Your task to perform on an android device: Go to display settings Image 0: 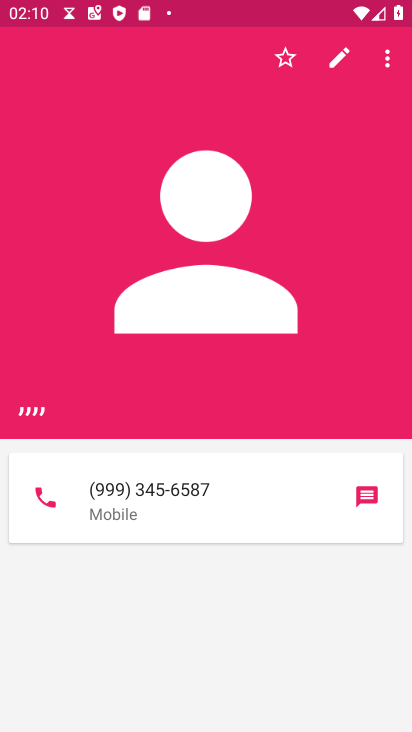
Step 0: press home button
Your task to perform on an android device: Go to display settings Image 1: 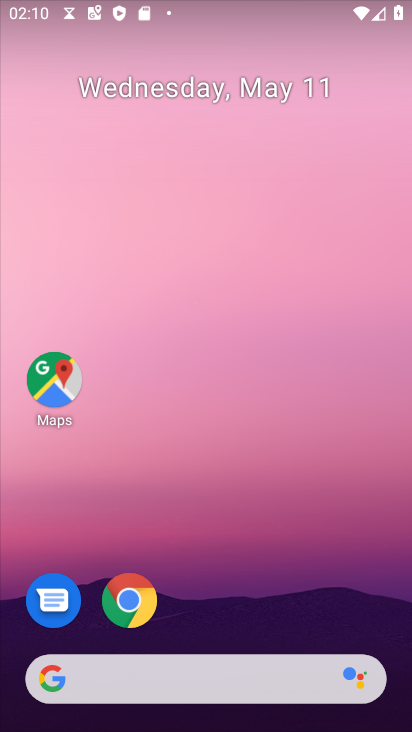
Step 1: drag from (234, 567) to (231, 235)
Your task to perform on an android device: Go to display settings Image 2: 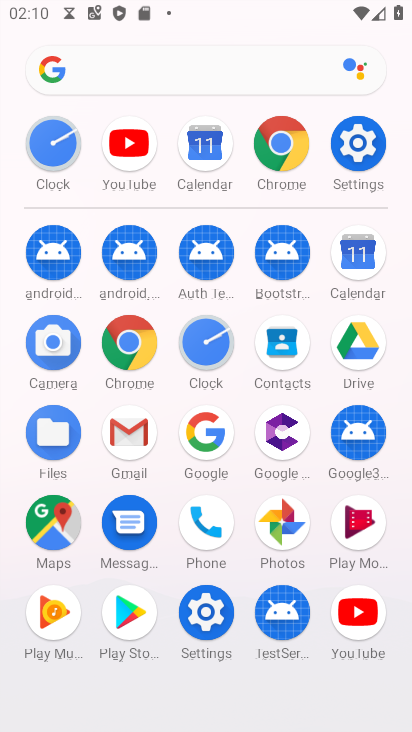
Step 2: click (354, 132)
Your task to perform on an android device: Go to display settings Image 3: 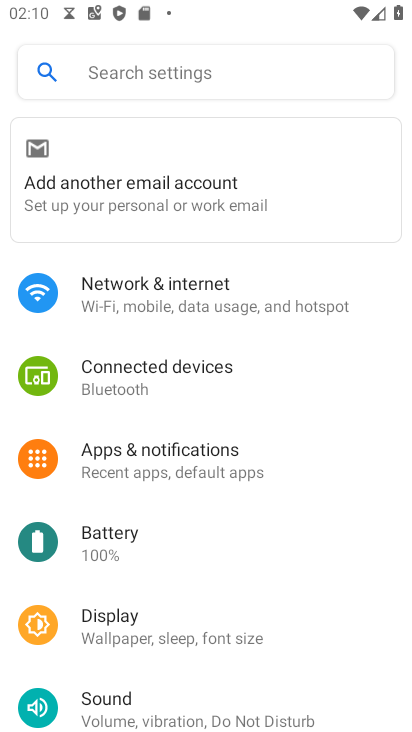
Step 3: click (113, 628)
Your task to perform on an android device: Go to display settings Image 4: 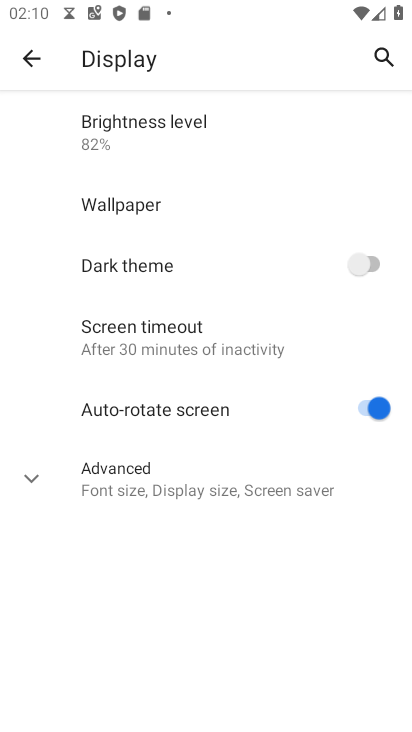
Step 4: task complete